Your task to perform on an android device: turn off notifications settings in the gmail app Image 0: 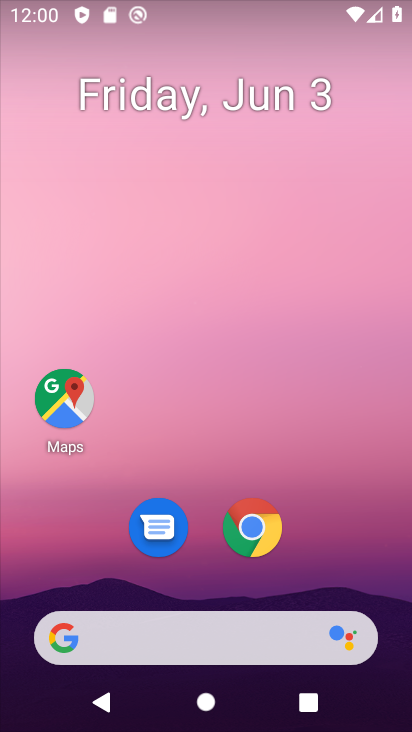
Step 0: drag from (355, 538) to (352, 107)
Your task to perform on an android device: turn off notifications settings in the gmail app Image 1: 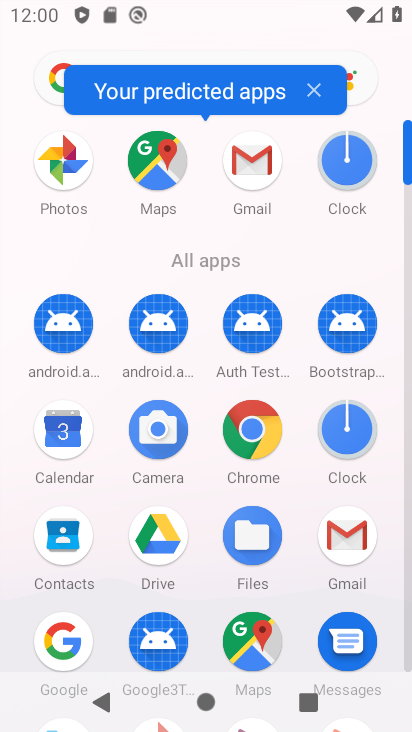
Step 1: click (259, 156)
Your task to perform on an android device: turn off notifications settings in the gmail app Image 2: 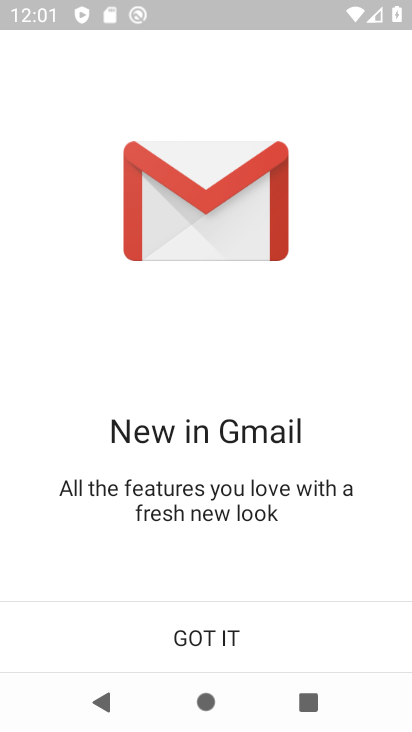
Step 2: click (139, 631)
Your task to perform on an android device: turn off notifications settings in the gmail app Image 3: 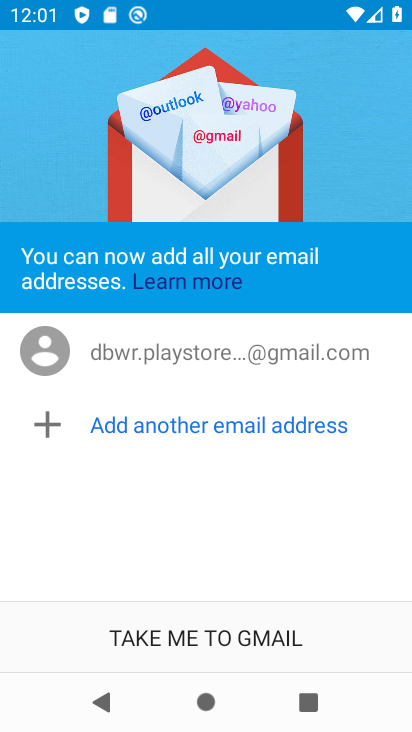
Step 3: click (157, 620)
Your task to perform on an android device: turn off notifications settings in the gmail app Image 4: 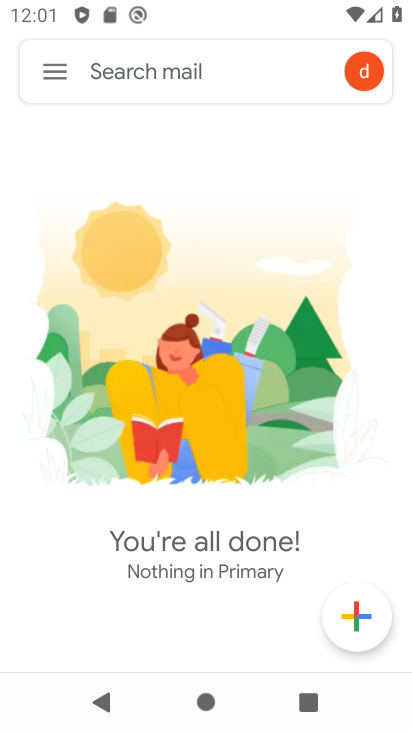
Step 4: click (54, 76)
Your task to perform on an android device: turn off notifications settings in the gmail app Image 5: 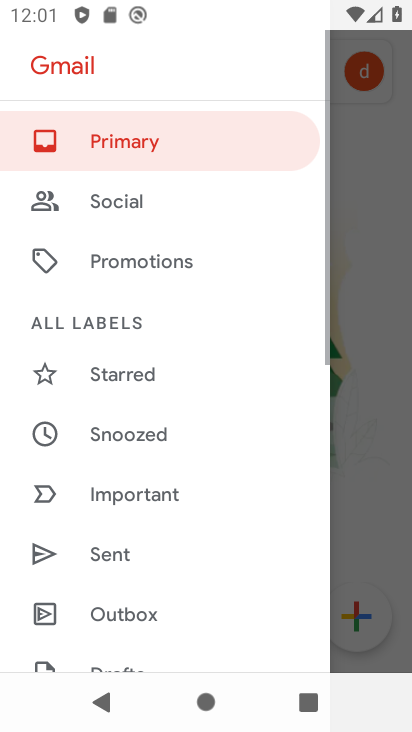
Step 5: drag from (163, 581) to (235, 49)
Your task to perform on an android device: turn off notifications settings in the gmail app Image 6: 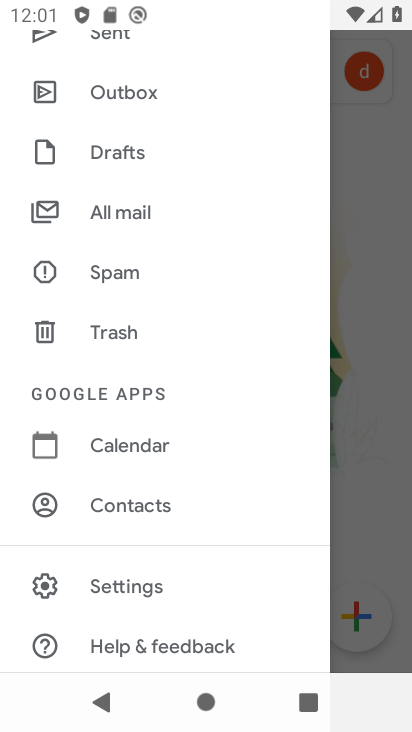
Step 6: click (130, 598)
Your task to perform on an android device: turn off notifications settings in the gmail app Image 7: 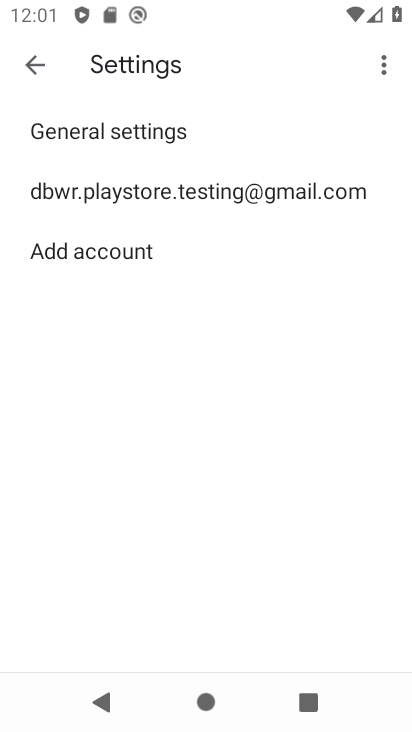
Step 7: click (164, 195)
Your task to perform on an android device: turn off notifications settings in the gmail app Image 8: 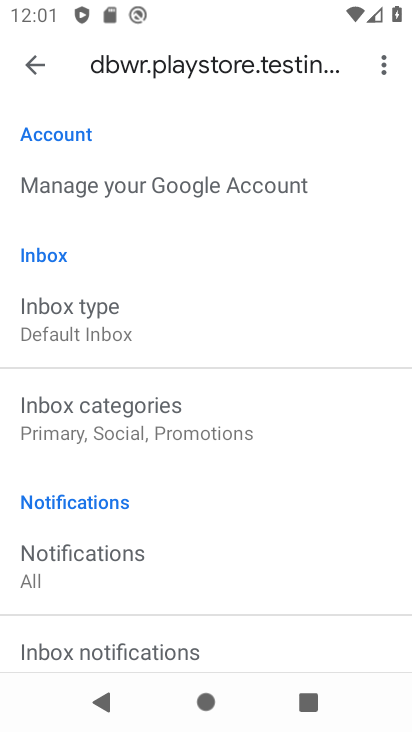
Step 8: drag from (101, 610) to (181, 246)
Your task to perform on an android device: turn off notifications settings in the gmail app Image 9: 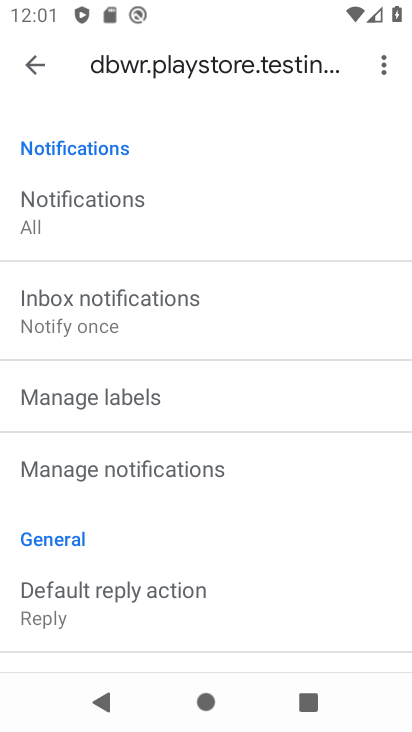
Step 9: click (151, 469)
Your task to perform on an android device: turn off notifications settings in the gmail app Image 10: 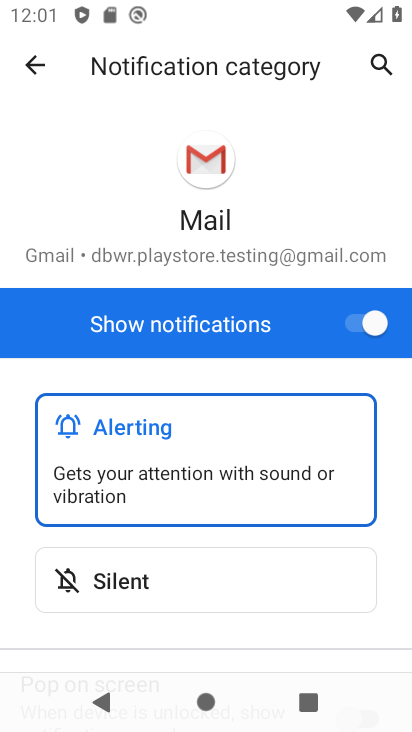
Step 10: click (346, 330)
Your task to perform on an android device: turn off notifications settings in the gmail app Image 11: 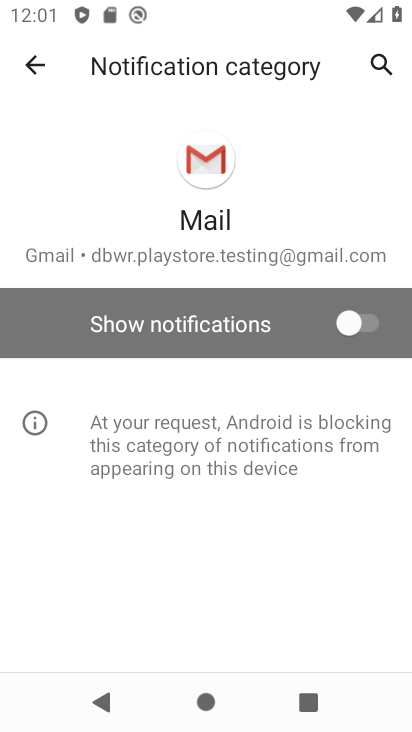
Step 11: task complete